Your task to perform on an android device: Open the calendar and show me this week's events? Image 0: 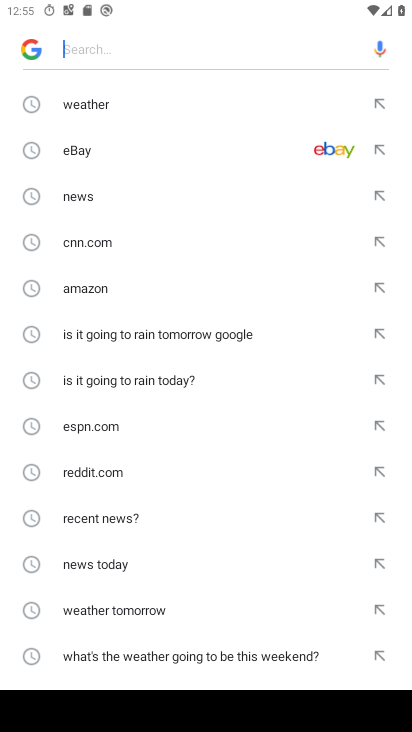
Step 0: drag from (178, 646) to (213, 59)
Your task to perform on an android device: Open the calendar and show me this week's events? Image 1: 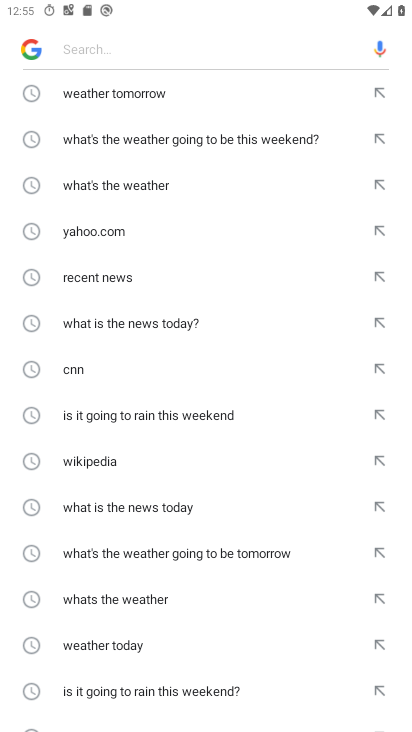
Step 1: drag from (197, 90) to (380, 664)
Your task to perform on an android device: Open the calendar and show me this week's events? Image 2: 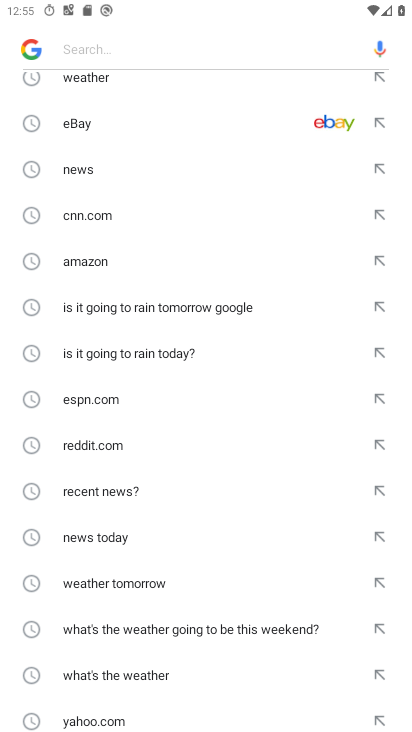
Step 2: press home button
Your task to perform on an android device: Open the calendar and show me this week's events? Image 3: 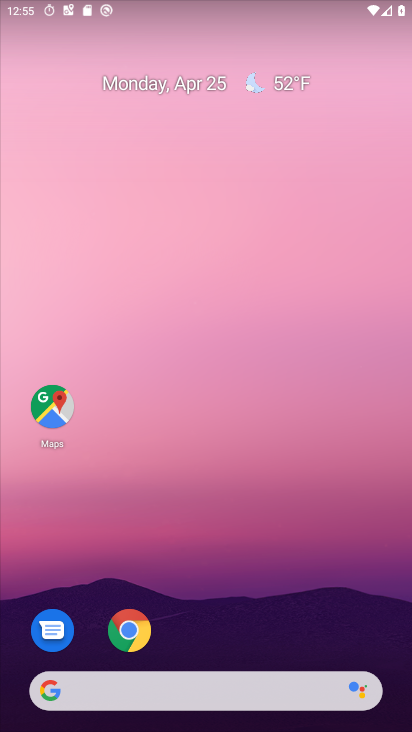
Step 3: drag from (175, 650) to (148, 185)
Your task to perform on an android device: Open the calendar and show me this week's events? Image 4: 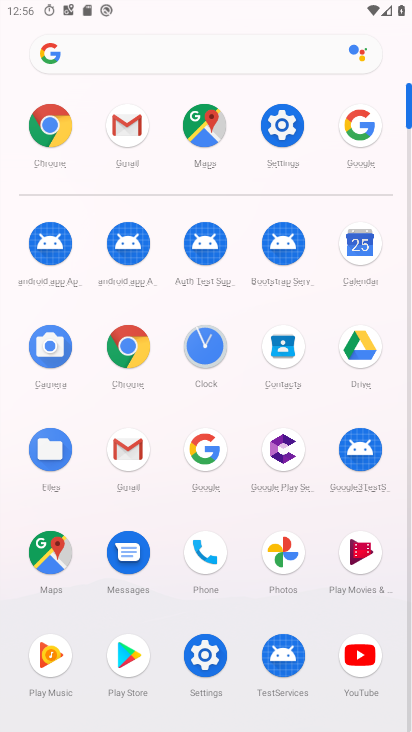
Step 4: click (343, 237)
Your task to perform on an android device: Open the calendar and show me this week's events? Image 5: 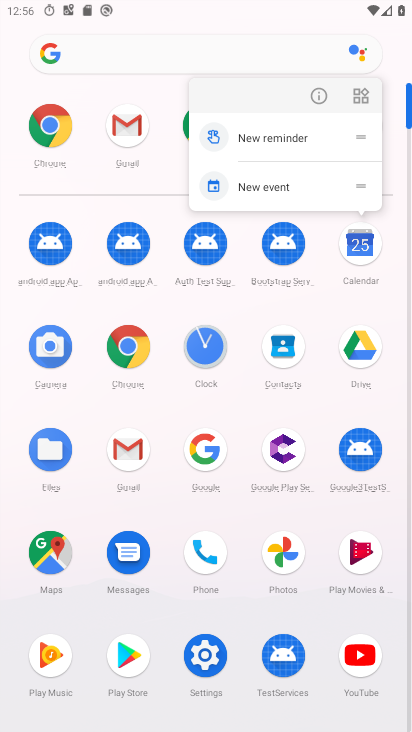
Step 5: click (326, 90)
Your task to perform on an android device: Open the calendar and show me this week's events? Image 6: 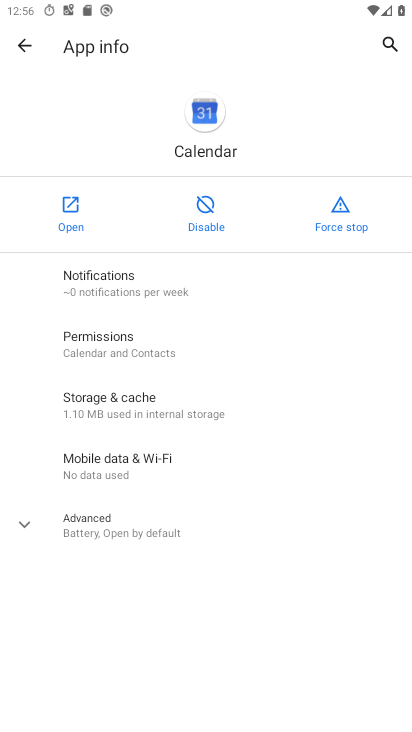
Step 6: click (71, 192)
Your task to perform on an android device: Open the calendar and show me this week's events? Image 7: 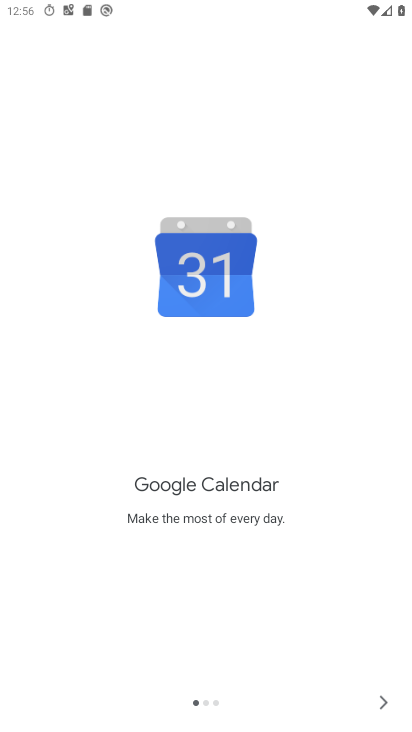
Step 7: click (385, 703)
Your task to perform on an android device: Open the calendar and show me this week's events? Image 8: 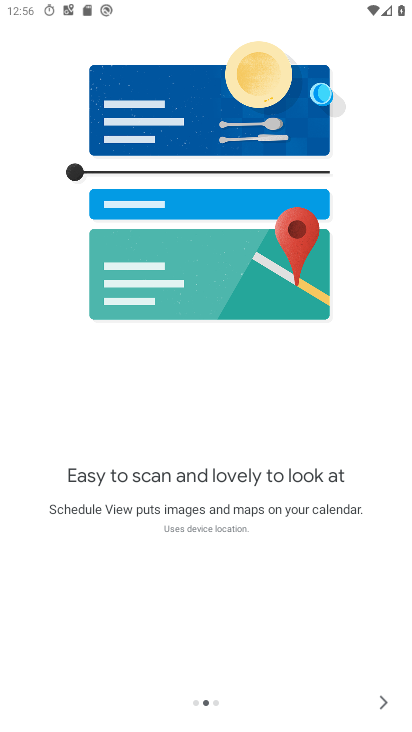
Step 8: click (380, 676)
Your task to perform on an android device: Open the calendar and show me this week's events? Image 9: 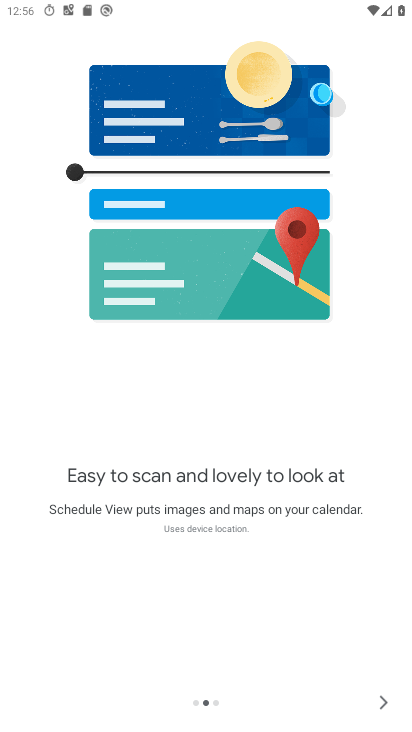
Step 9: click (378, 688)
Your task to perform on an android device: Open the calendar and show me this week's events? Image 10: 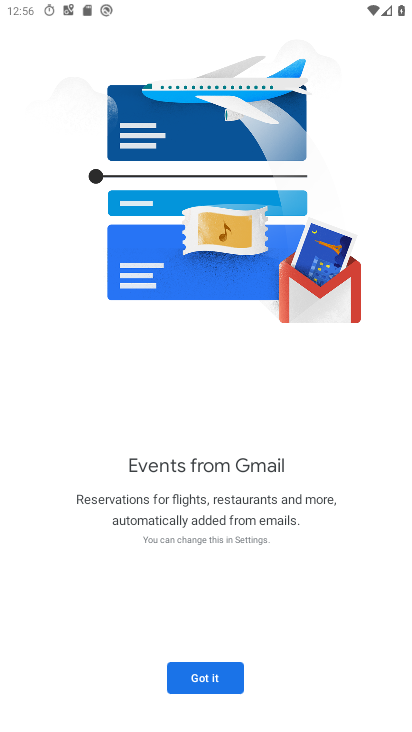
Step 10: click (213, 670)
Your task to perform on an android device: Open the calendar and show me this week's events? Image 11: 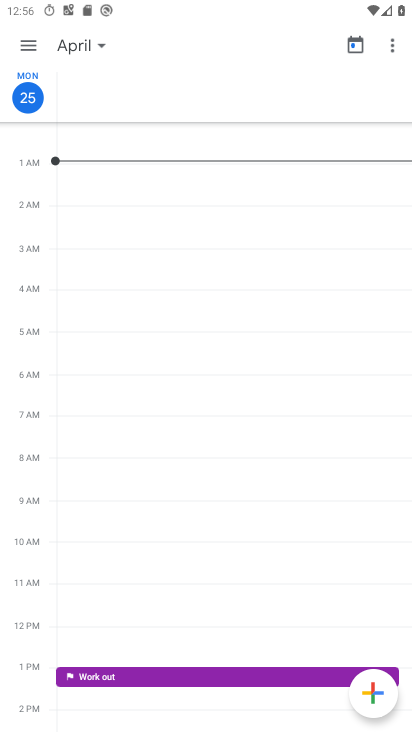
Step 11: drag from (277, 619) to (214, 253)
Your task to perform on an android device: Open the calendar and show me this week's events? Image 12: 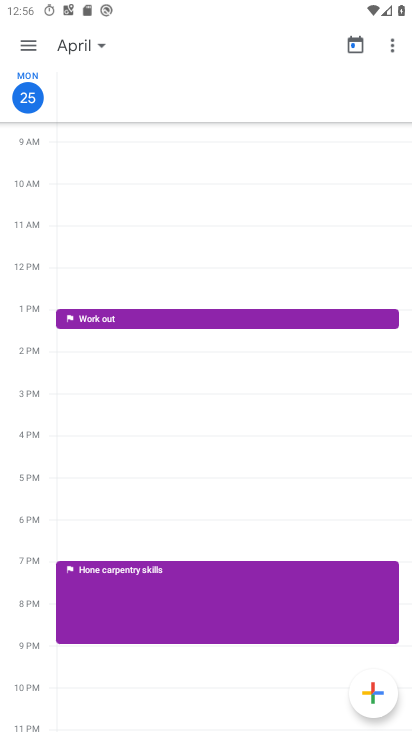
Step 12: click (84, 47)
Your task to perform on an android device: Open the calendar and show me this week's events? Image 13: 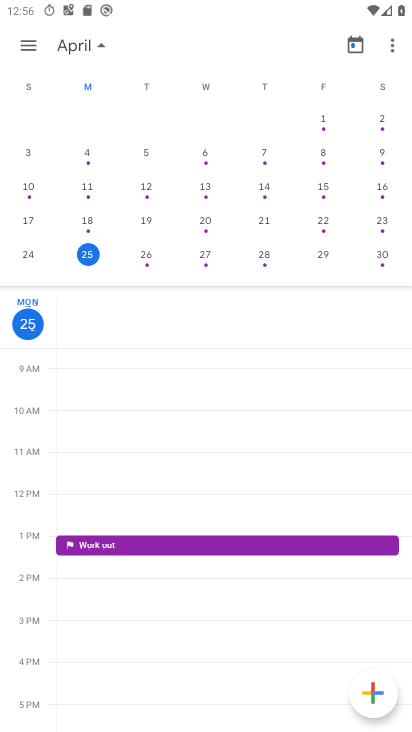
Step 13: click (278, 253)
Your task to perform on an android device: Open the calendar and show me this week's events? Image 14: 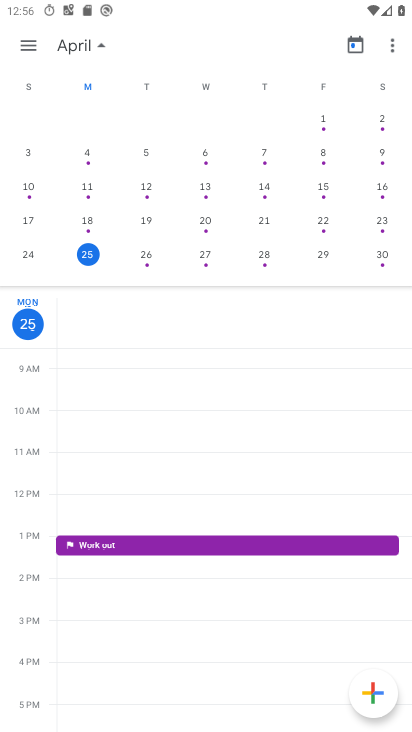
Step 14: click (265, 253)
Your task to perform on an android device: Open the calendar and show me this week's events? Image 15: 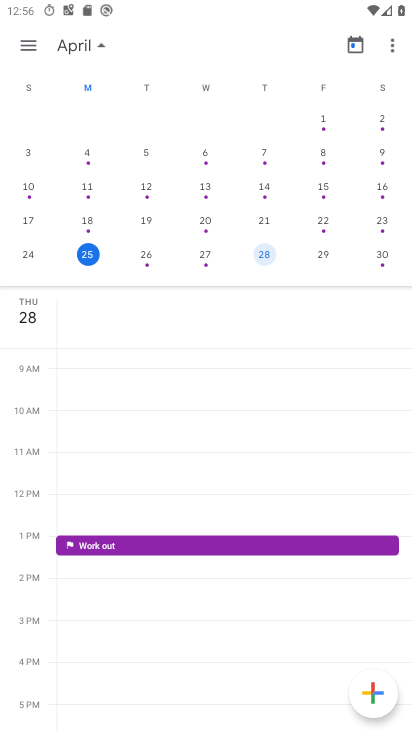
Step 15: click (31, 41)
Your task to perform on an android device: Open the calendar and show me this week's events? Image 16: 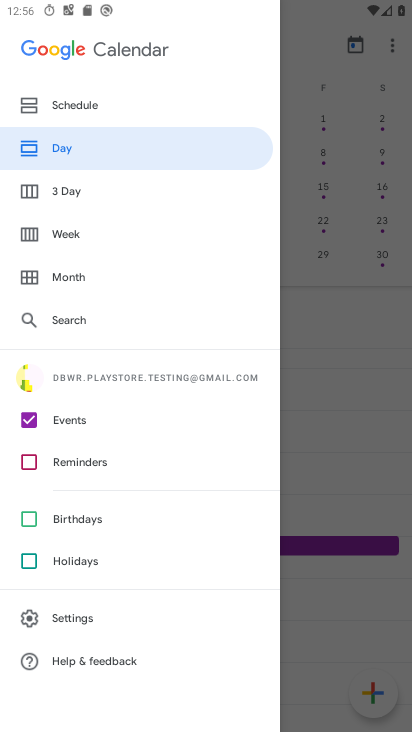
Step 16: task complete